Your task to perform on an android device: clear all cookies in the chrome app Image 0: 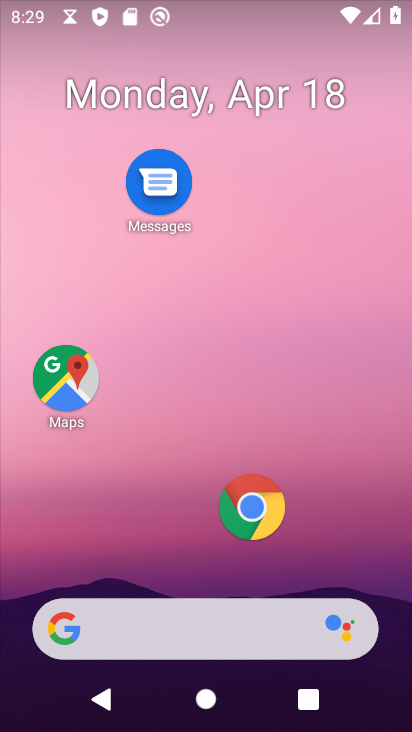
Step 0: click (260, 504)
Your task to perform on an android device: clear all cookies in the chrome app Image 1: 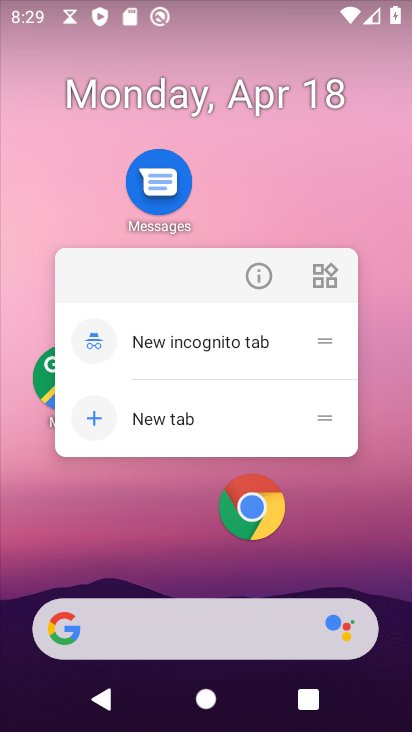
Step 1: click (251, 511)
Your task to perform on an android device: clear all cookies in the chrome app Image 2: 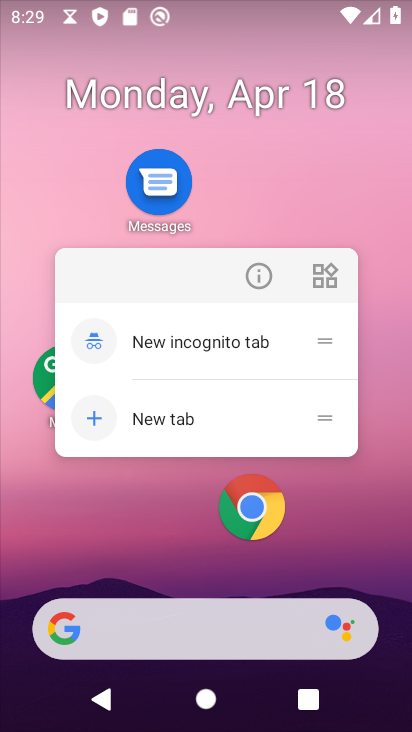
Step 2: click (251, 511)
Your task to perform on an android device: clear all cookies in the chrome app Image 3: 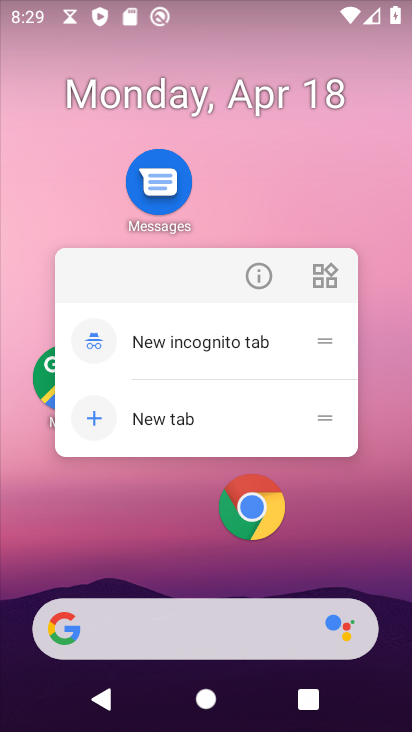
Step 3: click (276, 531)
Your task to perform on an android device: clear all cookies in the chrome app Image 4: 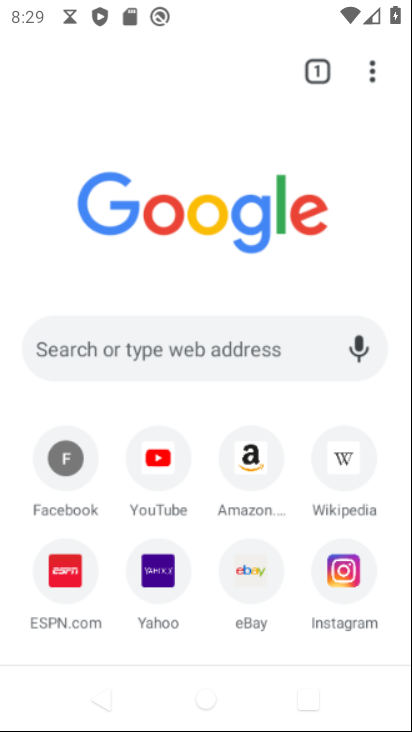
Step 4: click (260, 502)
Your task to perform on an android device: clear all cookies in the chrome app Image 5: 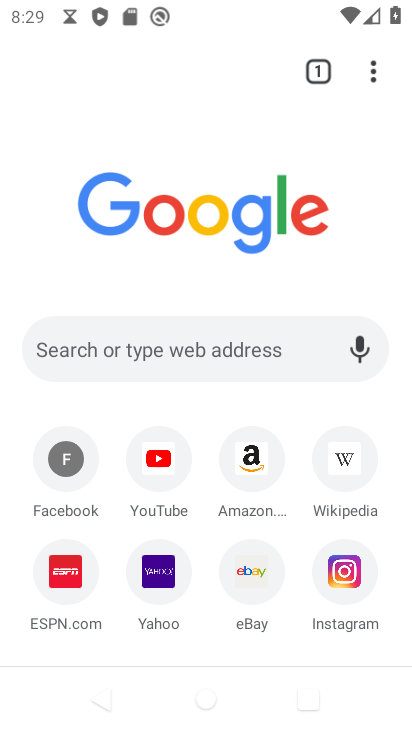
Step 5: click (374, 64)
Your task to perform on an android device: clear all cookies in the chrome app Image 6: 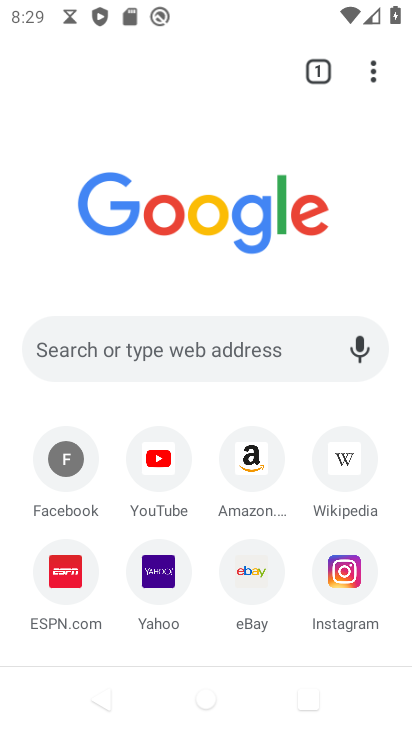
Step 6: click (374, 73)
Your task to perform on an android device: clear all cookies in the chrome app Image 7: 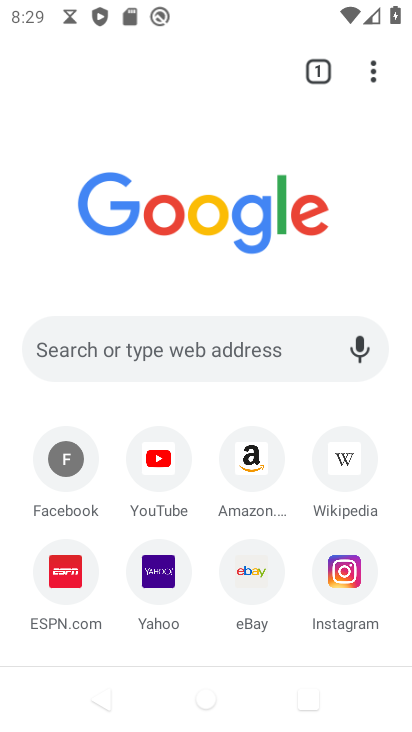
Step 7: click (374, 73)
Your task to perform on an android device: clear all cookies in the chrome app Image 8: 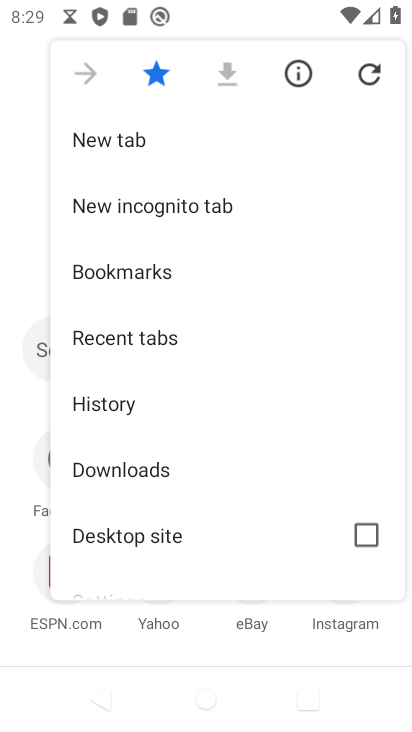
Step 8: click (114, 412)
Your task to perform on an android device: clear all cookies in the chrome app Image 9: 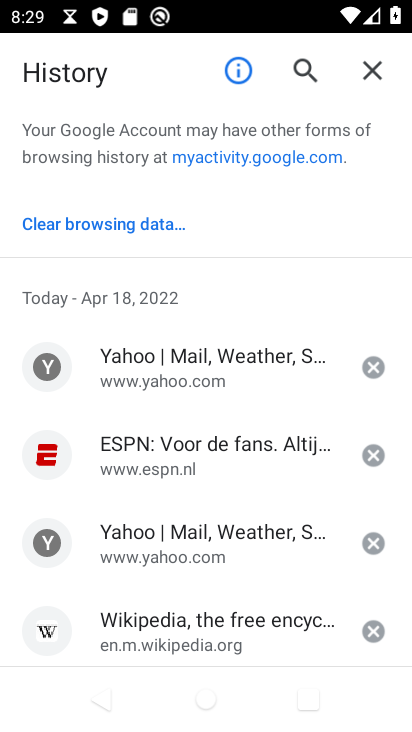
Step 9: click (136, 222)
Your task to perform on an android device: clear all cookies in the chrome app Image 10: 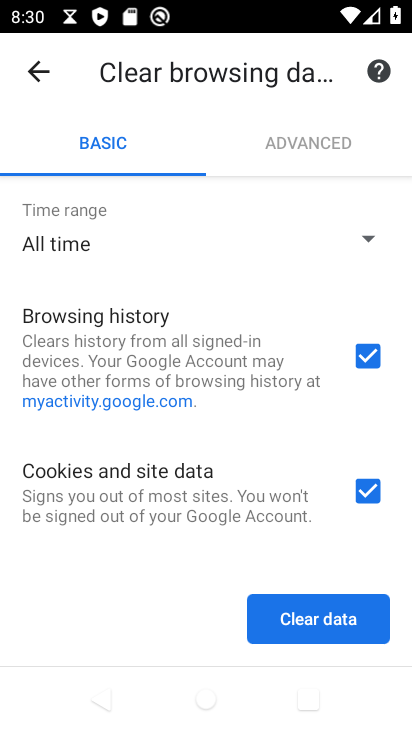
Step 10: click (367, 351)
Your task to perform on an android device: clear all cookies in the chrome app Image 11: 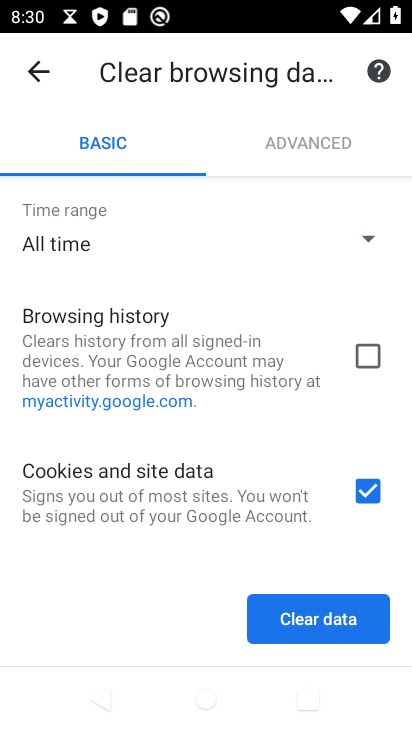
Step 11: drag from (251, 490) to (268, 287)
Your task to perform on an android device: clear all cookies in the chrome app Image 12: 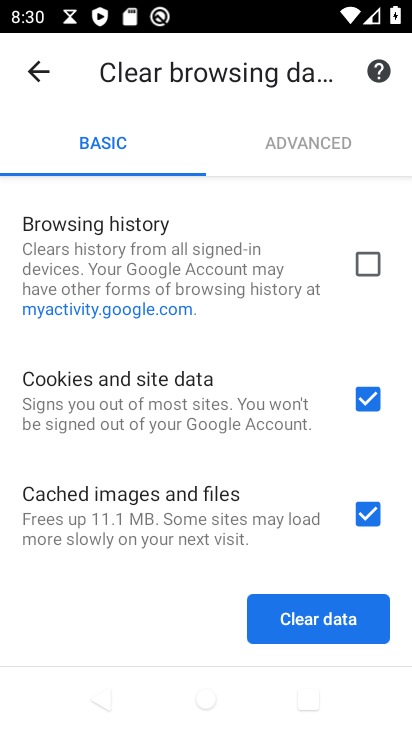
Step 12: click (371, 508)
Your task to perform on an android device: clear all cookies in the chrome app Image 13: 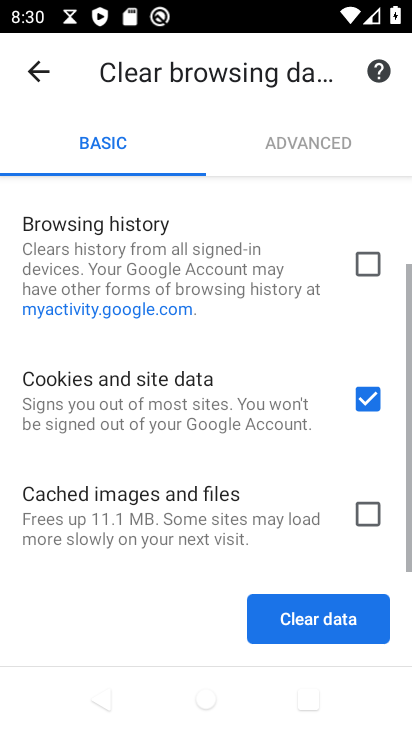
Step 13: click (319, 619)
Your task to perform on an android device: clear all cookies in the chrome app Image 14: 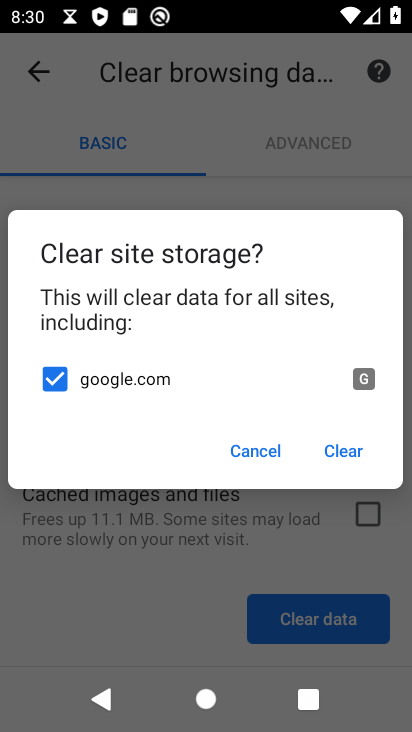
Step 14: click (336, 456)
Your task to perform on an android device: clear all cookies in the chrome app Image 15: 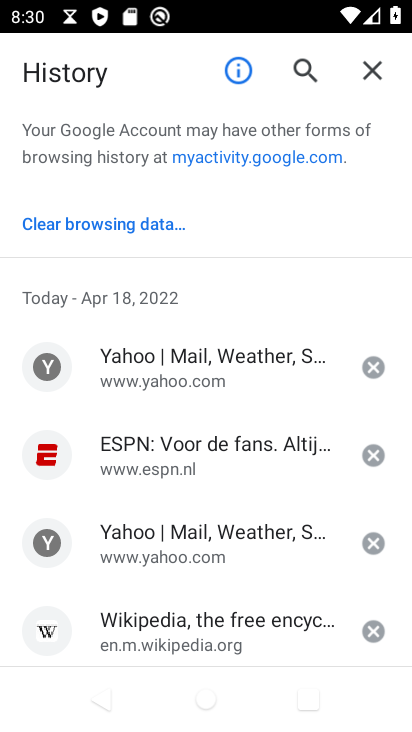
Step 15: task complete